Your task to perform on an android device: turn off priority inbox in the gmail app Image 0: 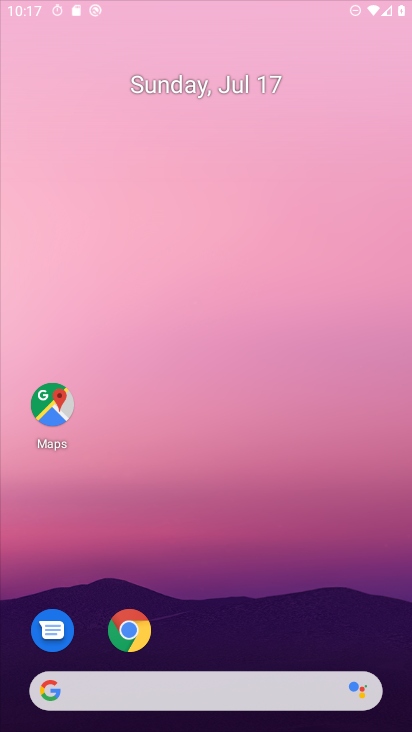
Step 0: click (230, 115)
Your task to perform on an android device: turn off priority inbox in the gmail app Image 1: 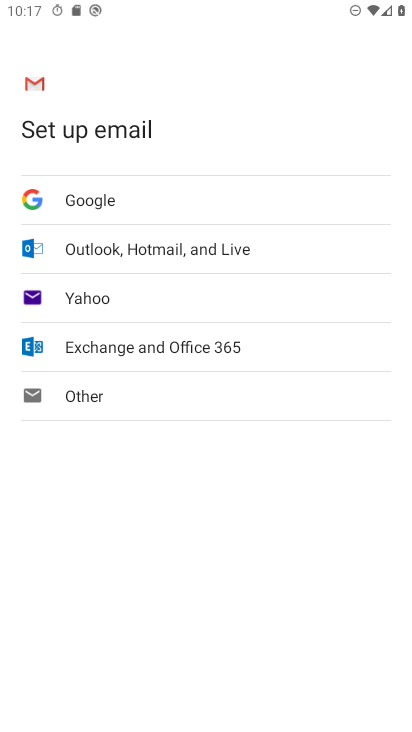
Step 1: press home button
Your task to perform on an android device: turn off priority inbox in the gmail app Image 2: 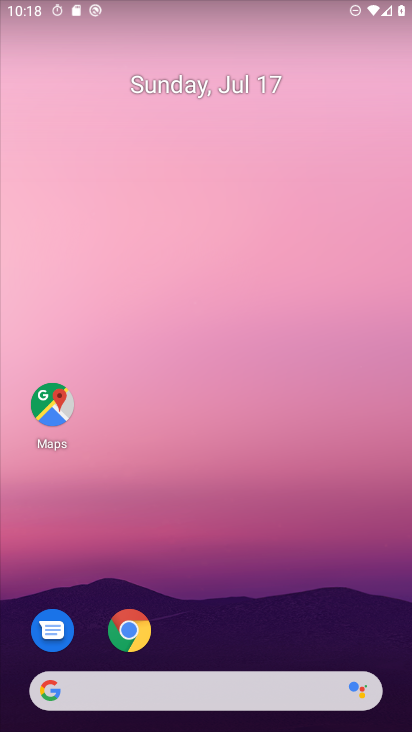
Step 2: drag from (250, 576) to (250, 156)
Your task to perform on an android device: turn off priority inbox in the gmail app Image 3: 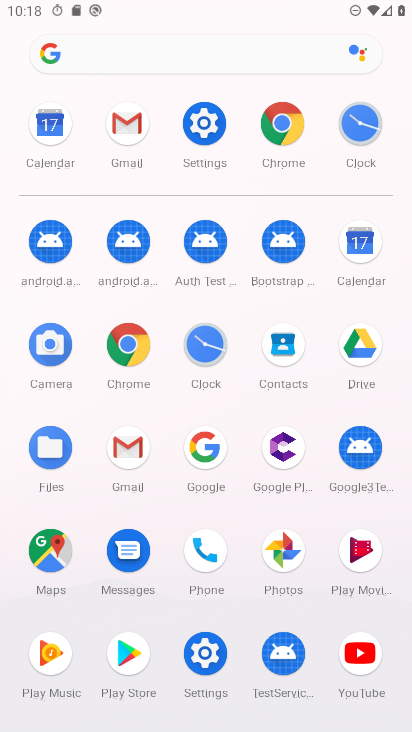
Step 3: click (120, 125)
Your task to perform on an android device: turn off priority inbox in the gmail app Image 4: 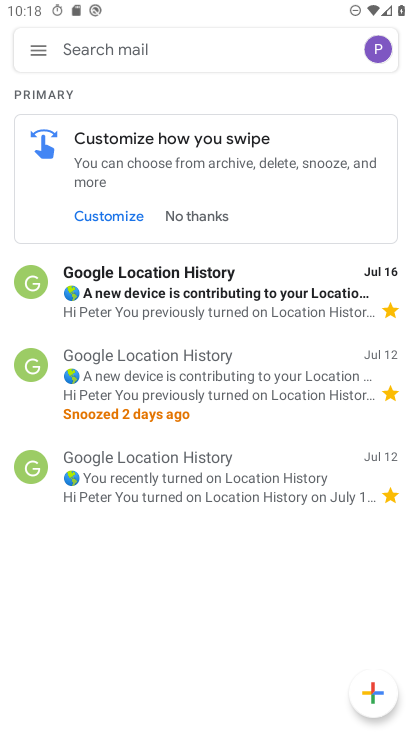
Step 4: click (41, 48)
Your task to perform on an android device: turn off priority inbox in the gmail app Image 5: 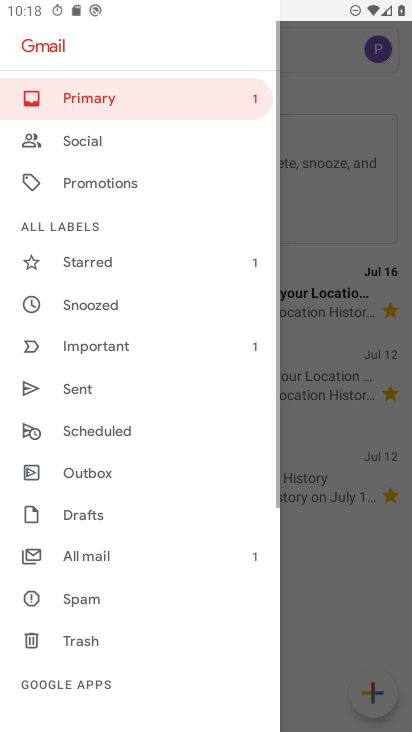
Step 5: drag from (137, 693) to (141, 211)
Your task to perform on an android device: turn off priority inbox in the gmail app Image 6: 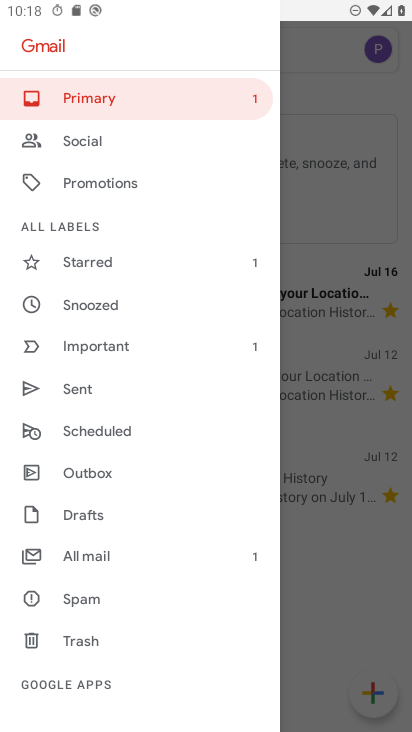
Step 6: drag from (125, 630) to (130, 263)
Your task to perform on an android device: turn off priority inbox in the gmail app Image 7: 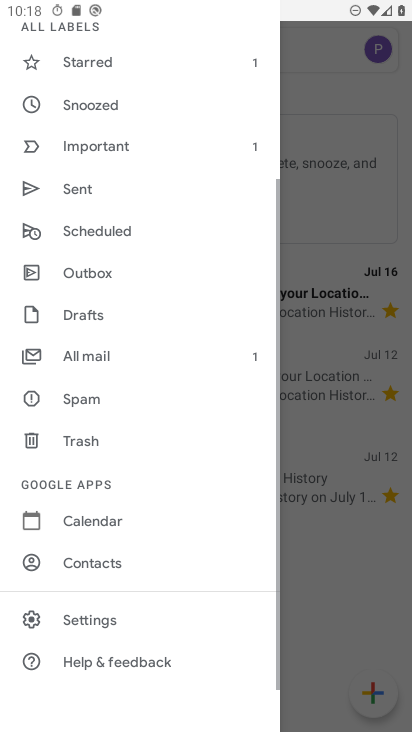
Step 7: click (103, 611)
Your task to perform on an android device: turn off priority inbox in the gmail app Image 8: 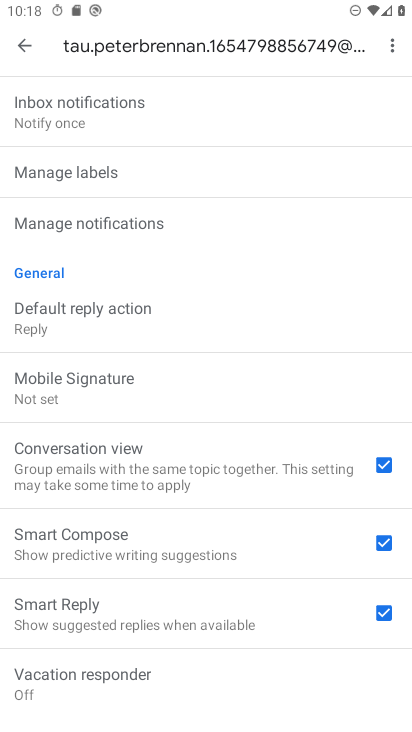
Step 8: drag from (95, 128) to (67, 618)
Your task to perform on an android device: turn off priority inbox in the gmail app Image 9: 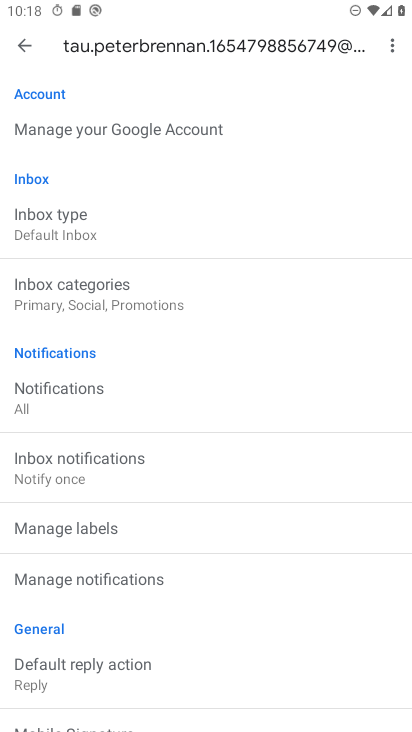
Step 9: click (73, 222)
Your task to perform on an android device: turn off priority inbox in the gmail app Image 10: 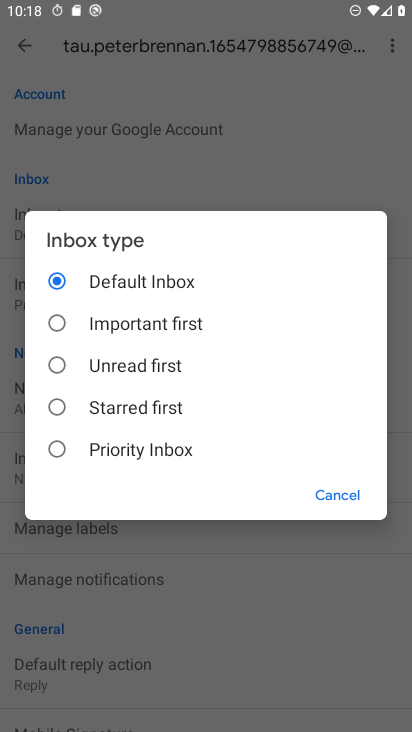
Step 10: task complete